Your task to perform on an android device: Open Chrome and go to settings Image 0: 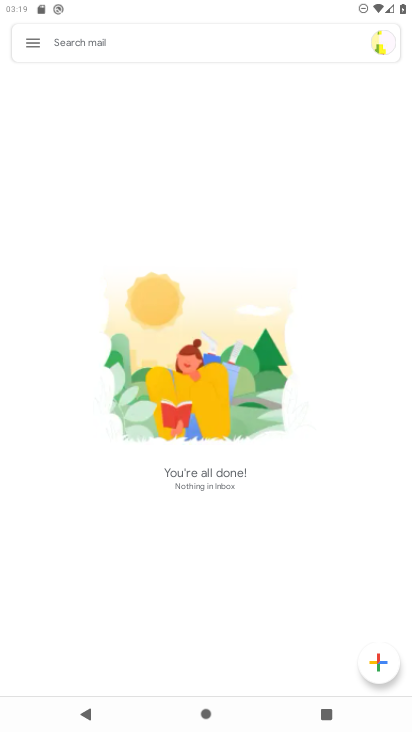
Step 0: press home button
Your task to perform on an android device: Open Chrome and go to settings Image 1: 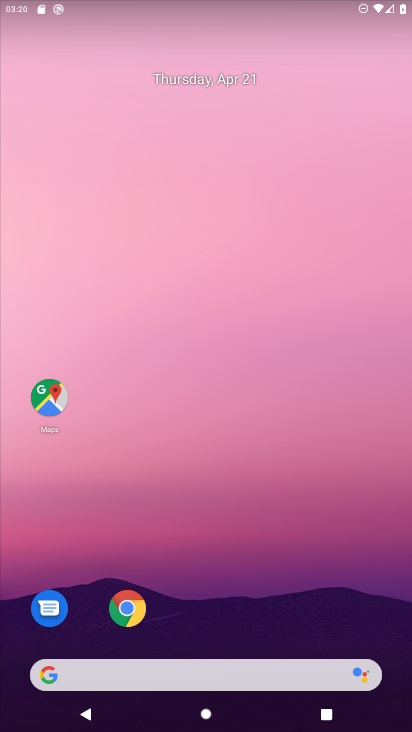
Step 1: drag from (221, 585) to (221, 239)
Your task to perform on an android device: Open Chrome and go to settings Image 2: 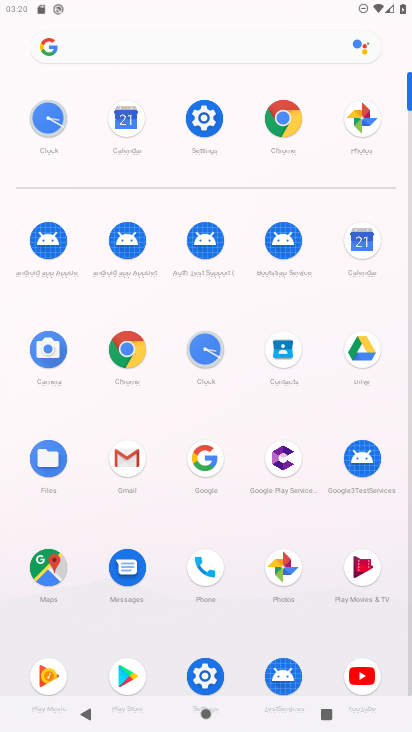
Step 2: click (133, 346)
Your task to perform on an android device: Open Chrome and go to settings Image 3: 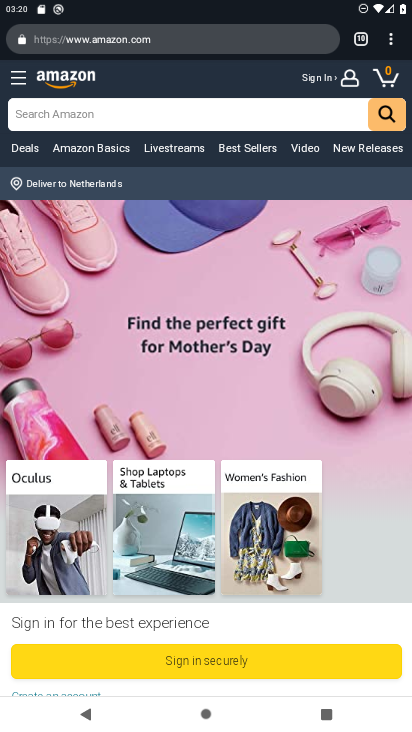
Step 3: click (386, 43)
Your task to perform on an android device: Open Chrome and go to settings Image 4: 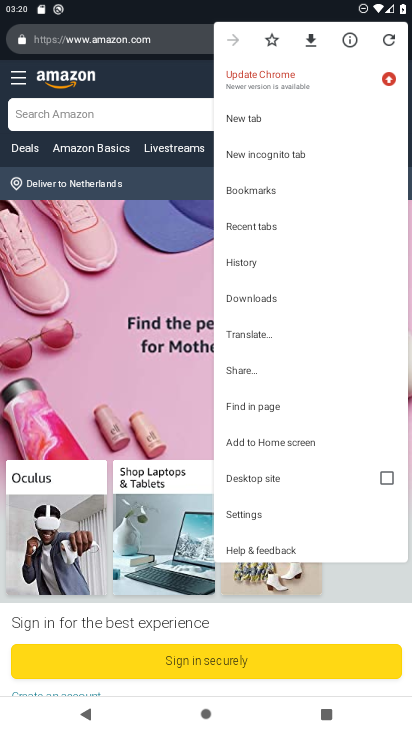
Step 4: click (264, 510)
Your task to perform on an android device: Open Chrome and go to settings Image 5: 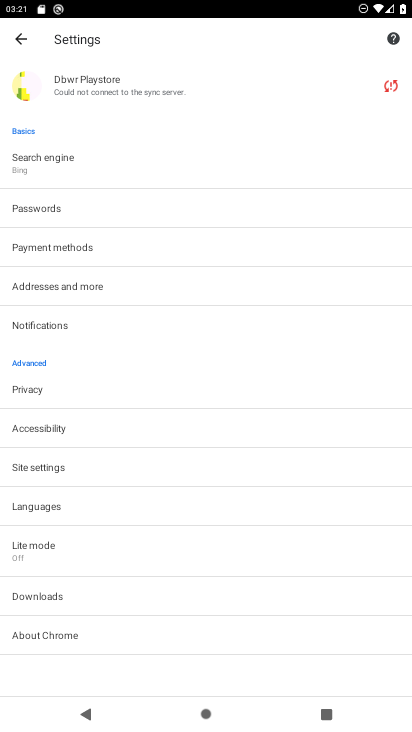
Step 5: task complete